Your task to perform on an android device: Open the Play Movies app and select the watchlist tab. Image 0: 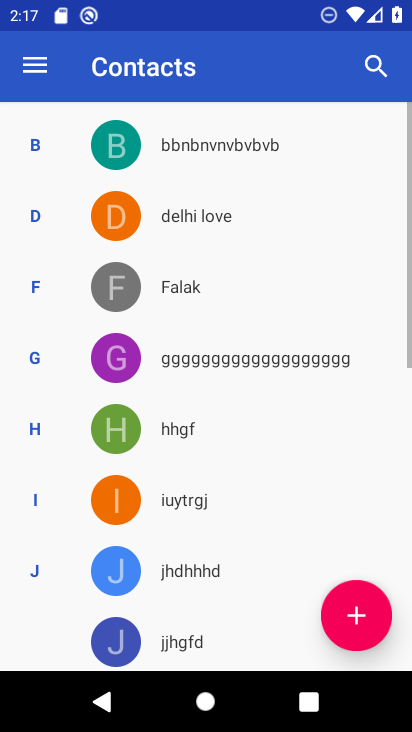
Step 0: press home button
Your task to perform on an android device: Open the Play Movies app and select the watchlist tab. Image 1: 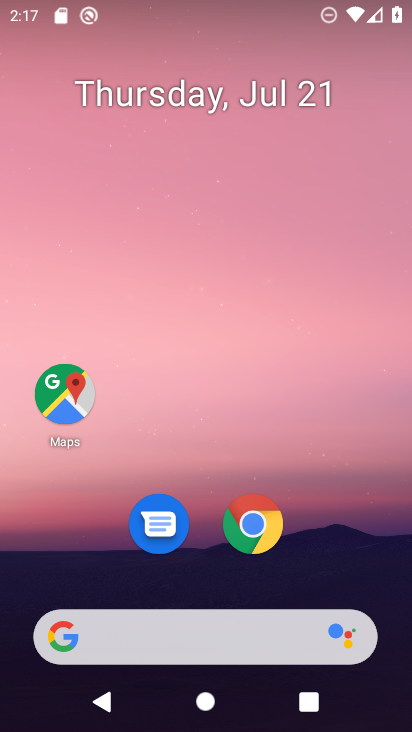
Step 1: drag from (222, 646) to (211, 160)
Your task to perform on an android device: Open the Play Movies app and select the watchlist tab. Image 2: 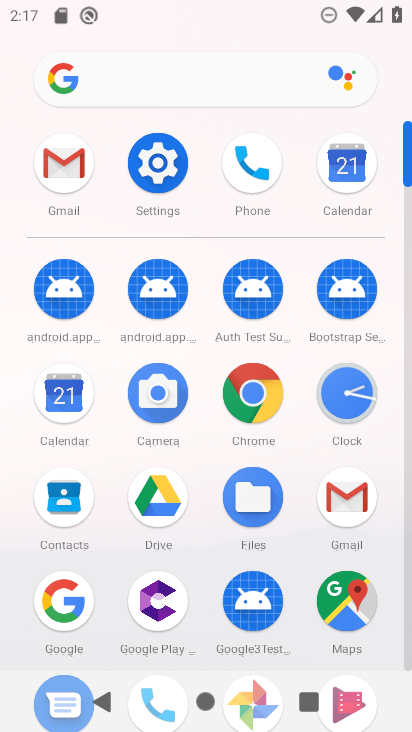
Step 2: drag from (207, 549) to (293, 113)
Your task to perform on an android device: Open the Play Movies app and select the watchlist tab. Image 3: 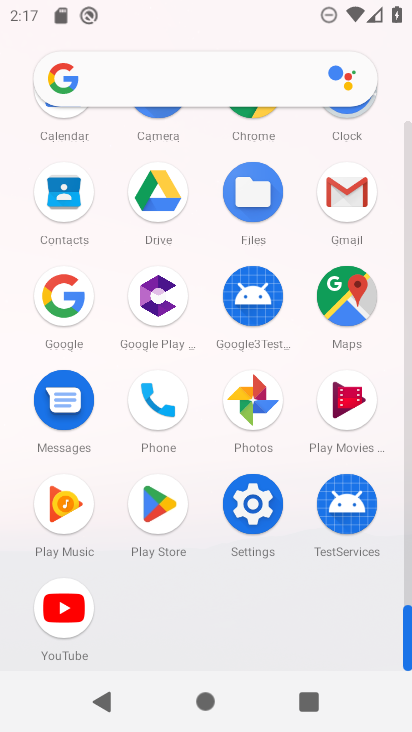
Step 3: click (344, 401)
Your task to perform on an android device: Open the Play Movies app and select the watchlist tab. Image 4: 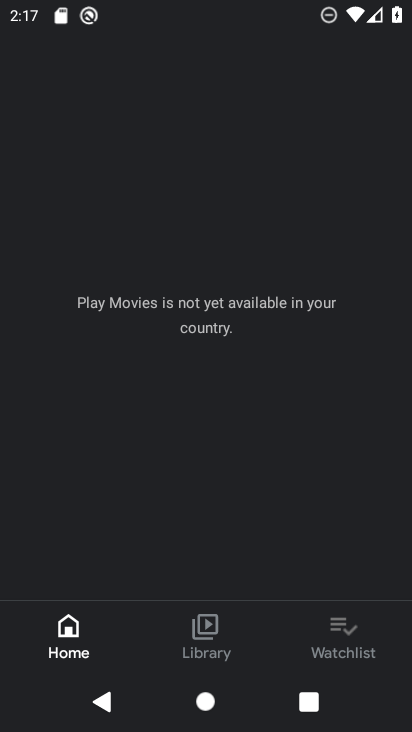
Step 4: click (337, 632)
Your task to perform on an android device: Open the Play Movies app and select the watchlist tab. Image 5: 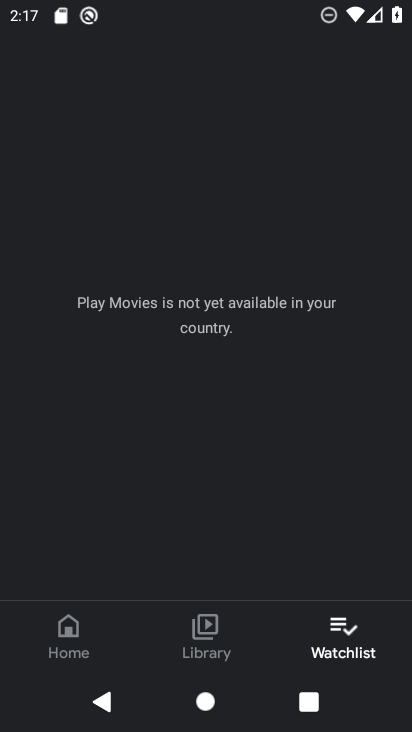
Step 5: task complete